Your task to perform on an android device: Go to privacy settings Image 0: 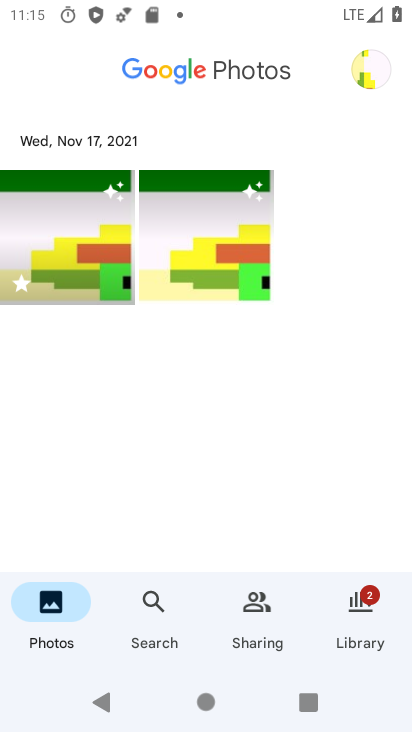
Step 0: press home button
Your task to perform on an android device: Go to privacy settings Image 1: 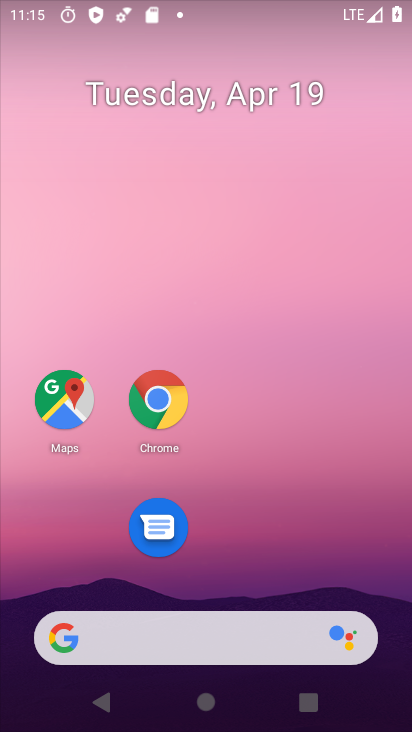
Step 1: drag from (256, 673) to (219, 238)
Your task to perform on an android device: Go to privacy settings Image 2: 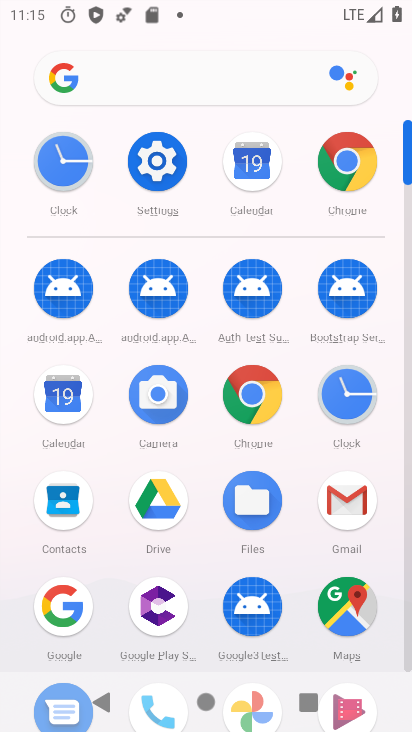
Step 2: click (162, 152)
Your task to perform on an android device: Go to privacy settings Image 3: 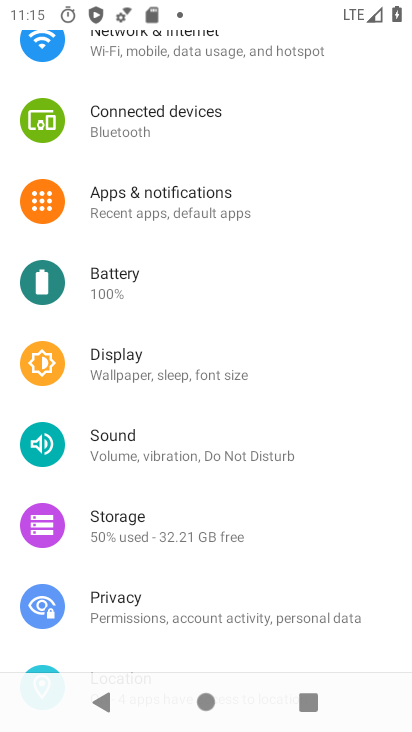
Step 3: click (111, 603)
Your task to perform on an android device: Go to privacy settings Image 4: 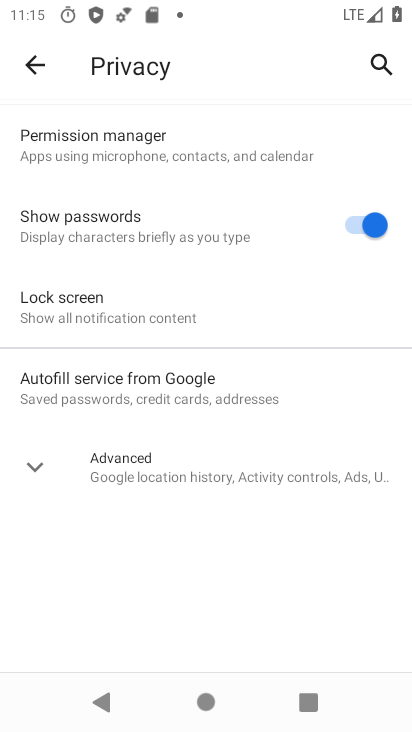
Step 4: task complete